Your task to perform on an android device: View the shopping cart on ebay.com. Add logitech g933 to the cart on ebay.com Image 0: 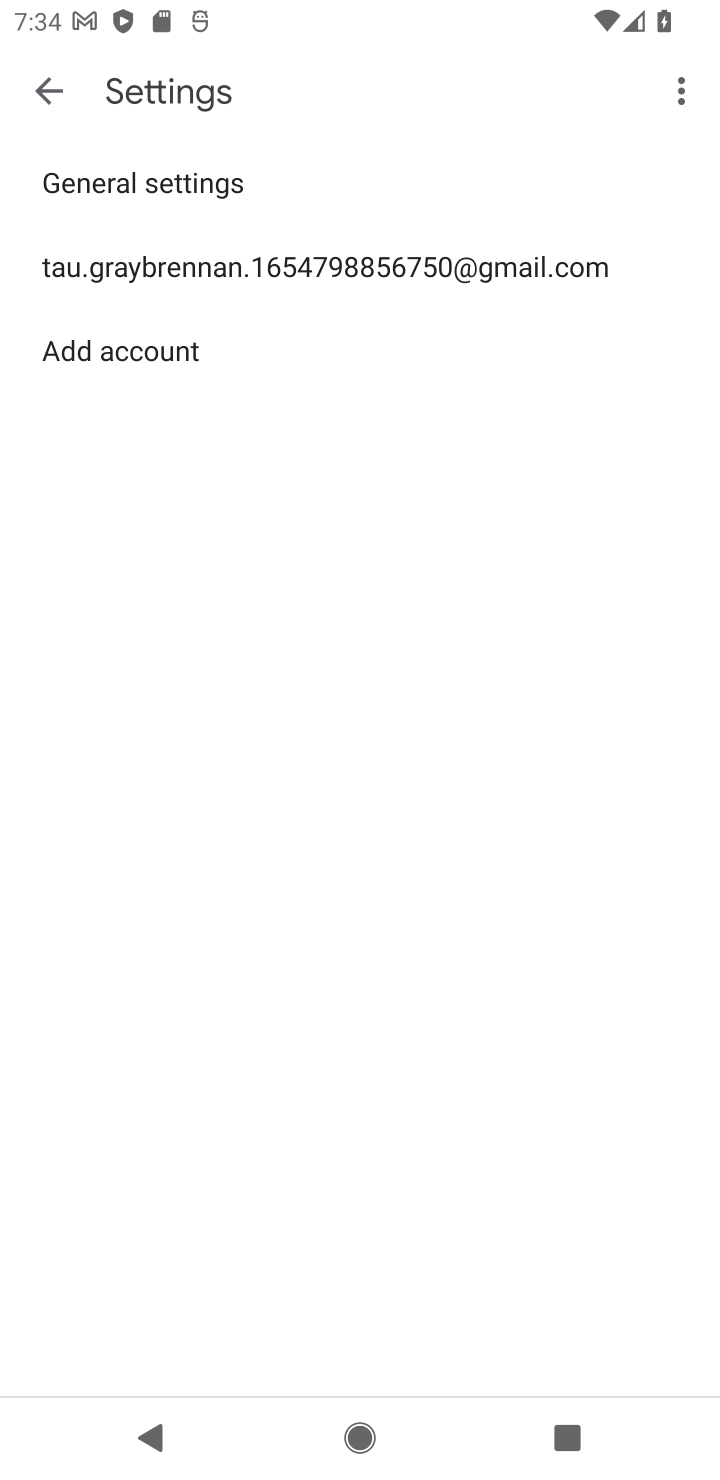
Step 0: task complete